Your task to perform on an android device: Do I have any events this weekend? Image 0: 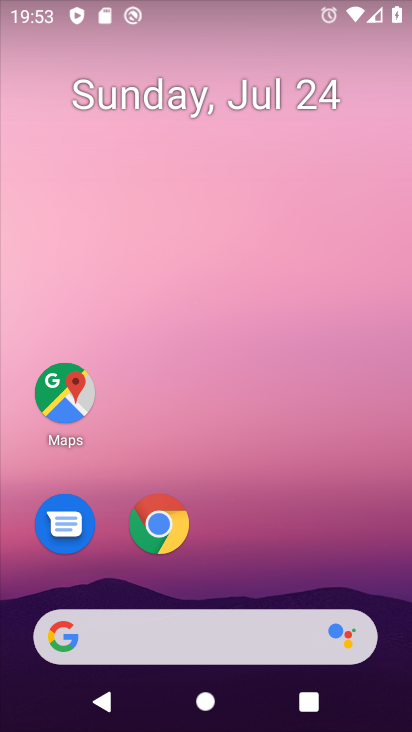
Step 0: drag from (248, 565) to (283, 49)
Your task to perform on an android device: Do I have any events this weekend? Image 1: 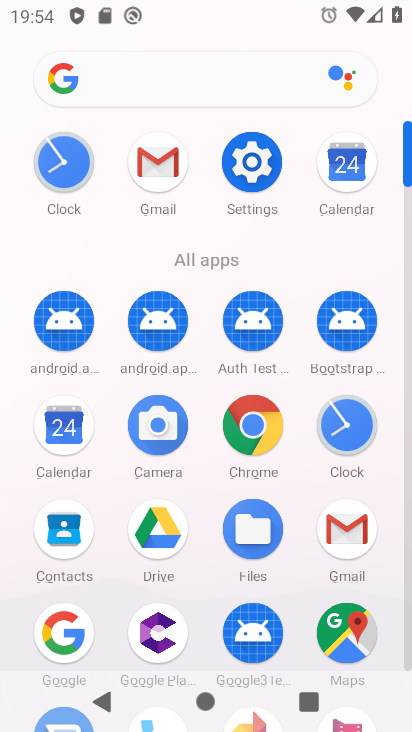
Step 1: click (359, 169)
Your task to perform on an android device: Do I have any events this weekend? Image 2: 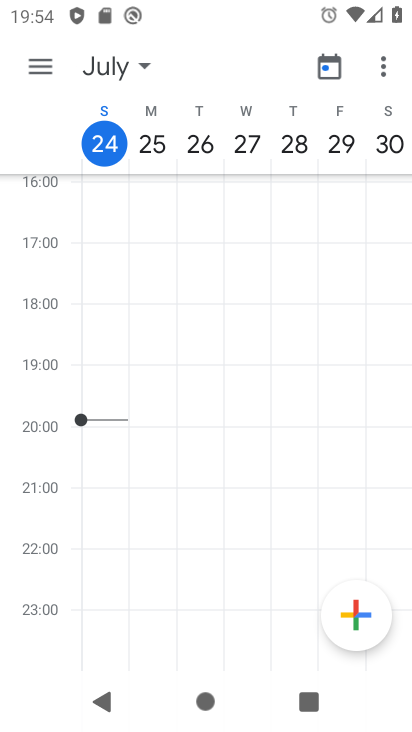
Step 2: click (382, 128)
Your task to perform on an android device: Do I have any events this weekend? Image 3: 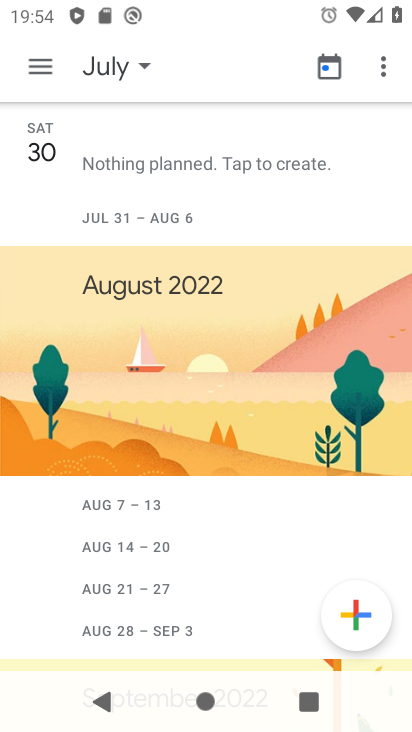
Step 3: task complete